Your task to perform on an android device: toggle priority inbox in the gmail app Image 0: 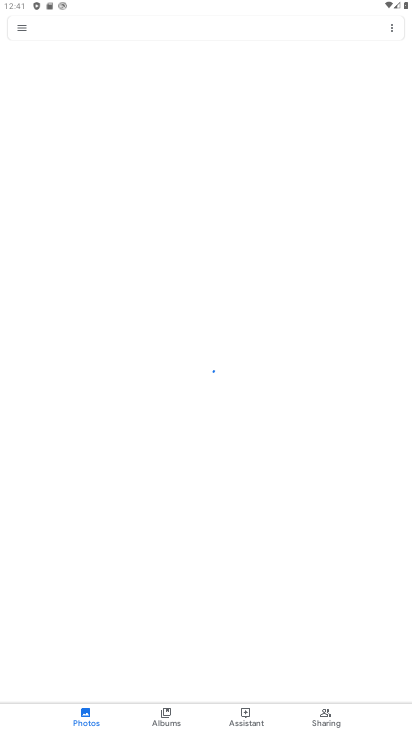
Step 0: press home button
Your task to perform on an android device: toggle priority inbox in the gmail app Image 1: 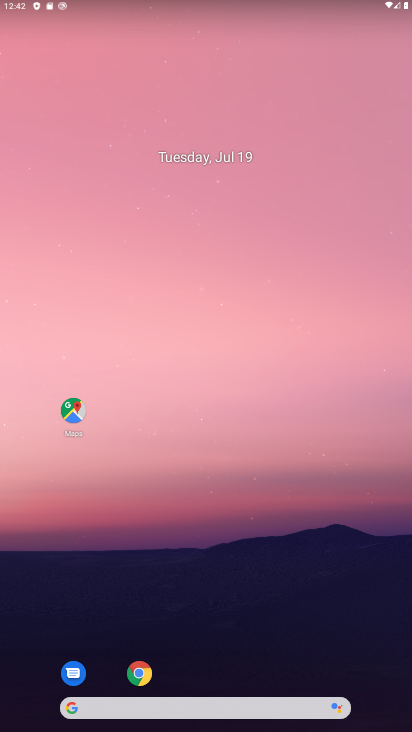
Step 1: drag from (257, 676) to (275, 83)
Your task to perform on an android device: toggle priority inbox in the gmail app Image 2: 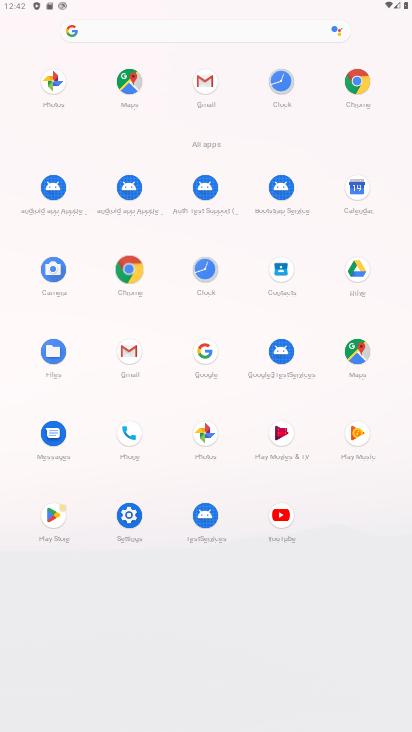
Step 2: click (127, 349)
Your task to perform on an android device: toggle priority inbox in the gmail app Image 3: 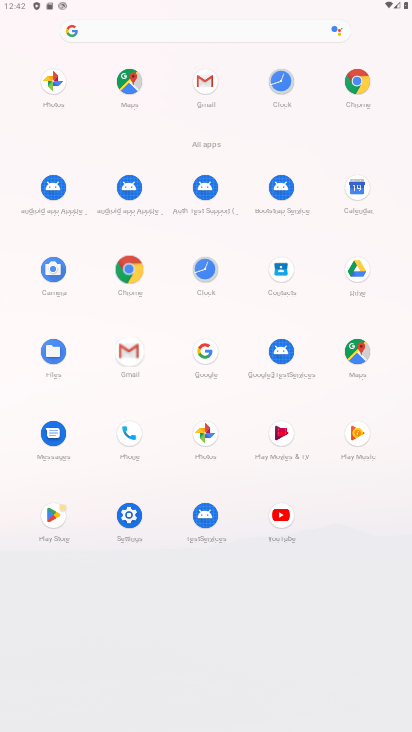
Step 3: click (132, 346)
Your task to perform on an android device: toggle priority inbox in the gmail app Image 4: 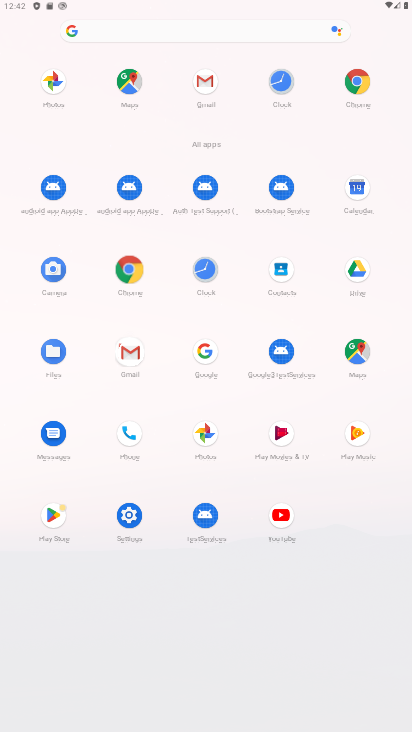
Step 4: click (133, 345)
Your task to perform on an android device: toggle priority inbox in the gmail app Image 5: 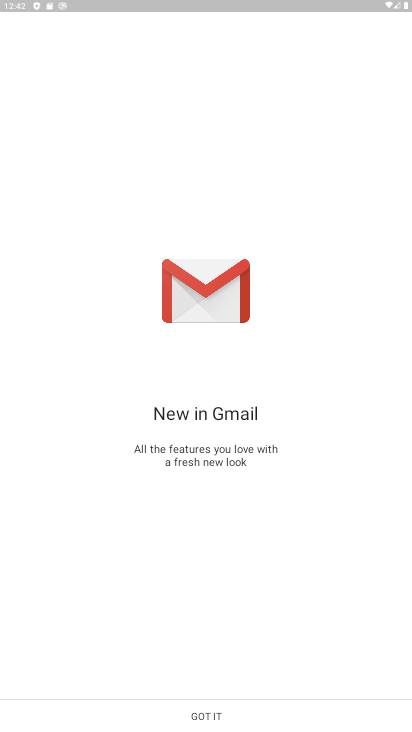
Step 5: click (215, 708)
Your task to perform on an android device: toggle priority inbox in the gmail app Image 6: 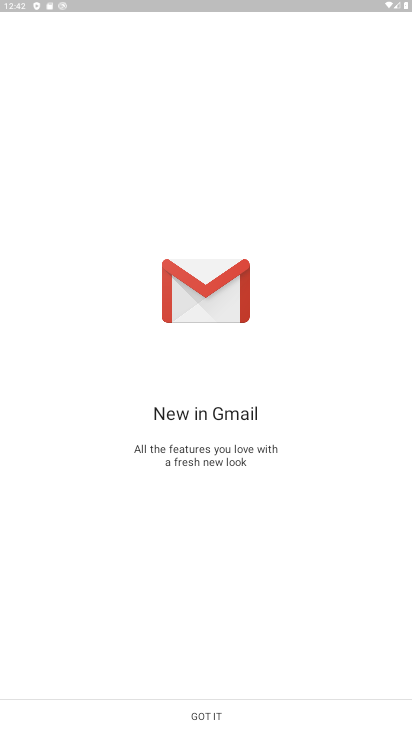
Step 6: click (216, 706)
Your task to perform on an android device: toggle priority inbox in the gmail app Image 7: 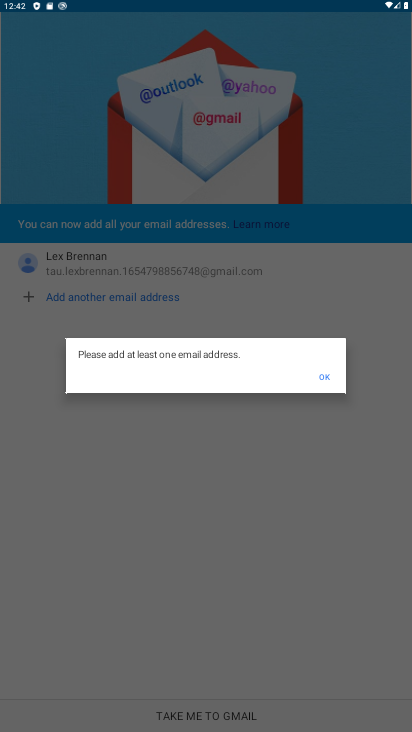
Step 7: click (323, 377)
Your task to perform on an android device: toggle priority inbox in the gmail app Image 8: 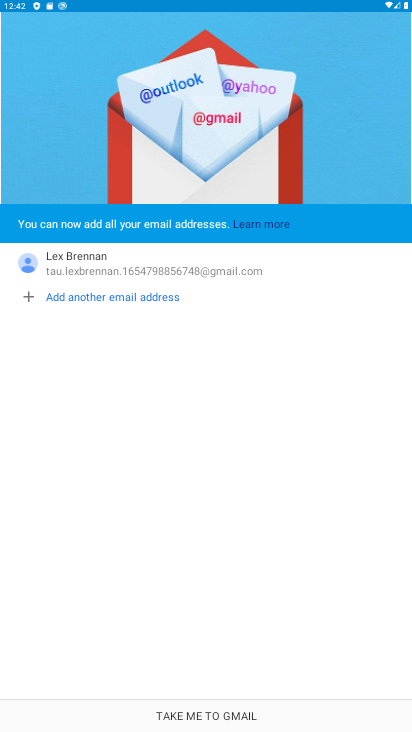
Step 8: task complete